Your task to perform on an android device: delete location history Image 0: 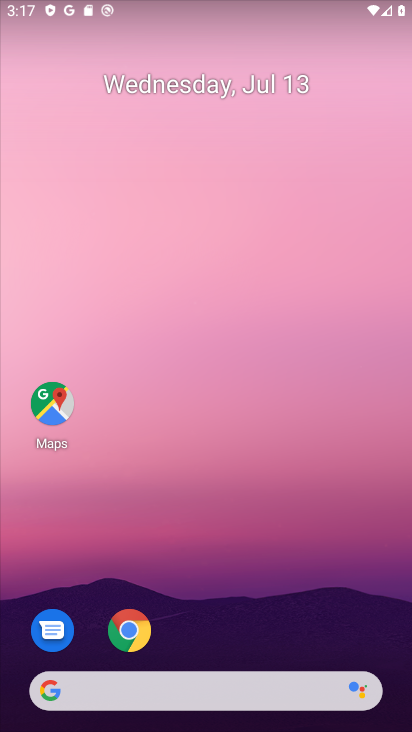
Step 0: drag from (174, 511) to (128, 324)
Your task to perform on an android device: delete location history Image 1: 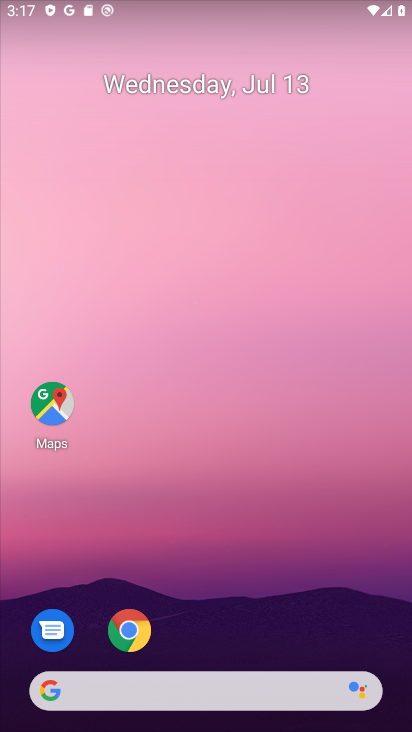
Step 1: drag from (131, 227) to (127, 124)
Your task to perform on an android device: delete location history Image 2: 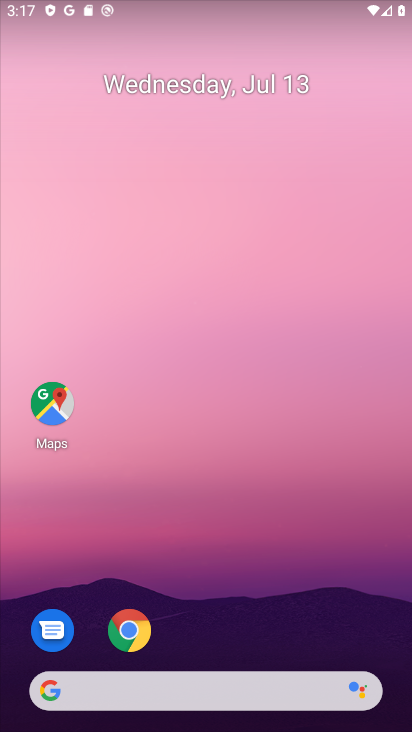
Step 2: drag from (137, 482) to (132, 192)
Your task to perform on an android device: delete location history Image 3: 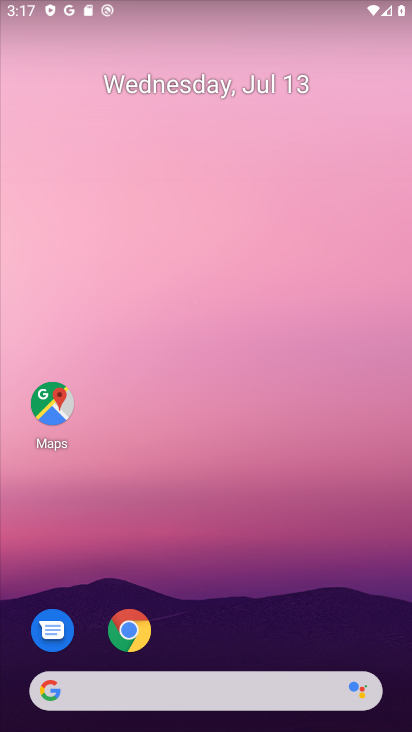
Step 3: drag from (206, 623) to (199, 291)
Your task to perform on an android device: delete location history Image 4: 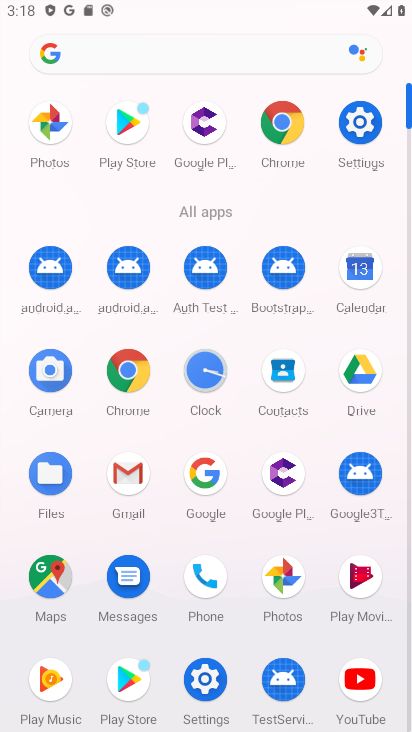
Step 4: click (55, 577)
Your task to perform on an android device: delete location history Image 5: 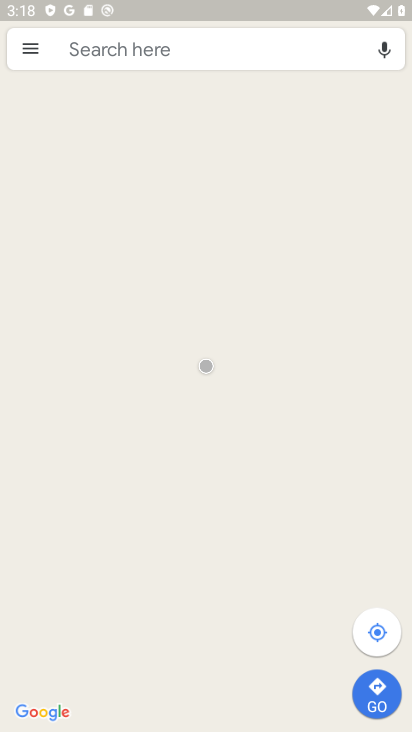
Step 5: click (22, 52)
Your task to perform on an android device: delete location history Image 6: 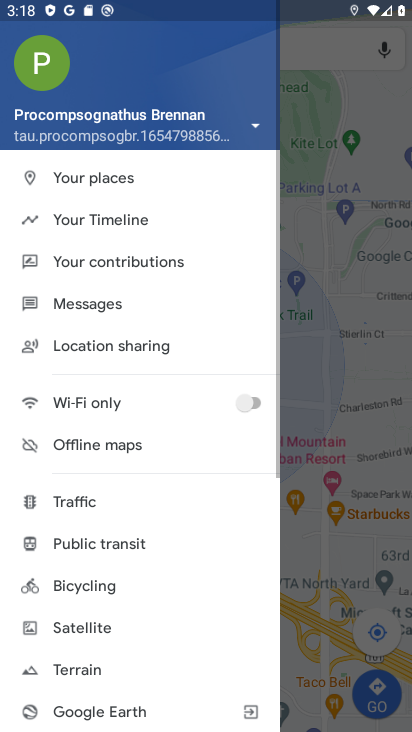
Step 6: click (106, 221)
Your task to perform on an android device: delete location history Image 7: 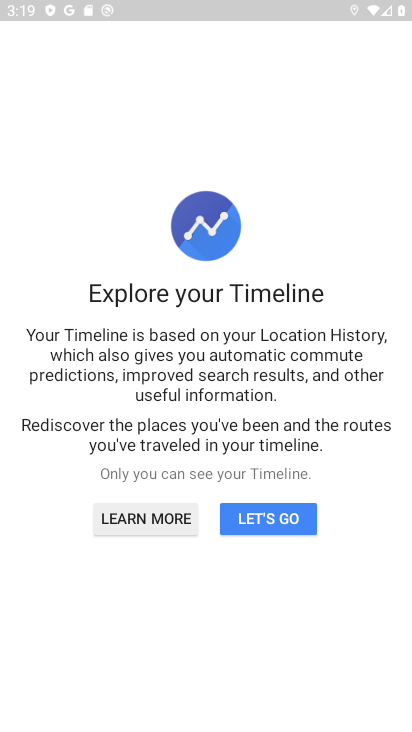
Step 7: click (261, 523)
Your task to perform on an android device: delete location history Image 8: 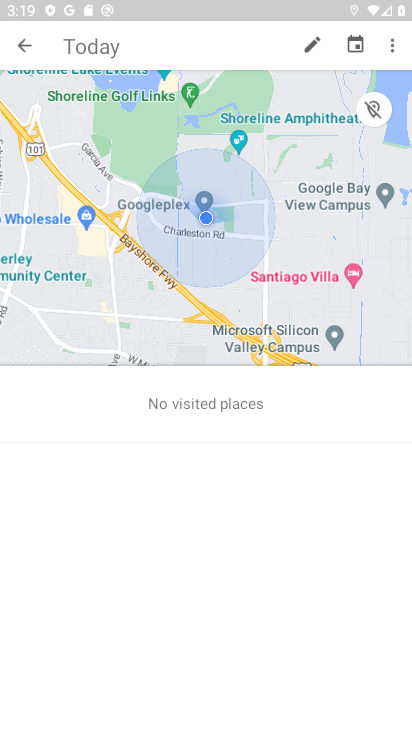
Step 8: click (392, 47)
Your task to perform on an android device: delete location history Image 9: 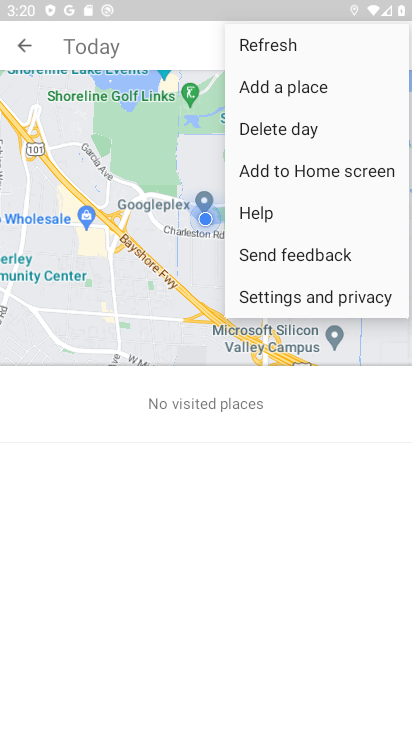
Step 9: click (277, 304)
Your task to perform on an android device: delete location history Image 10: 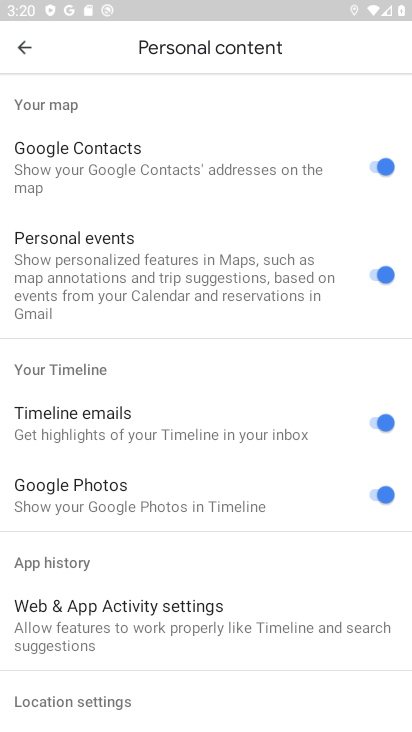
Step 10: drag from (168, 620) to (274, 283)
Your task to perform on an android device: delete location history Image 11: 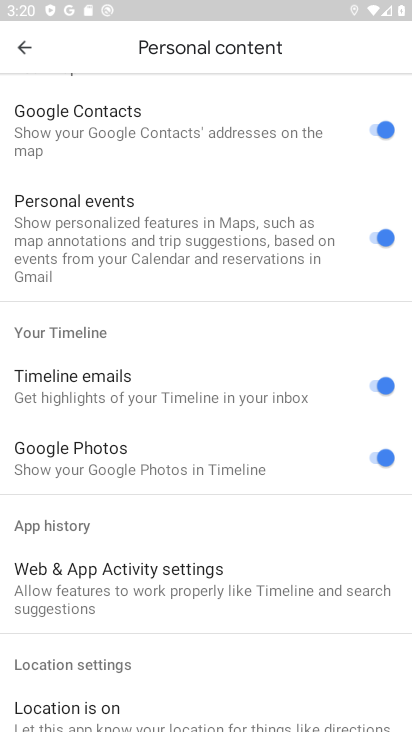
Step 11: drag from (134, 572) to (154, 409)
Your task to perform on an android device: delete location history Image 12: 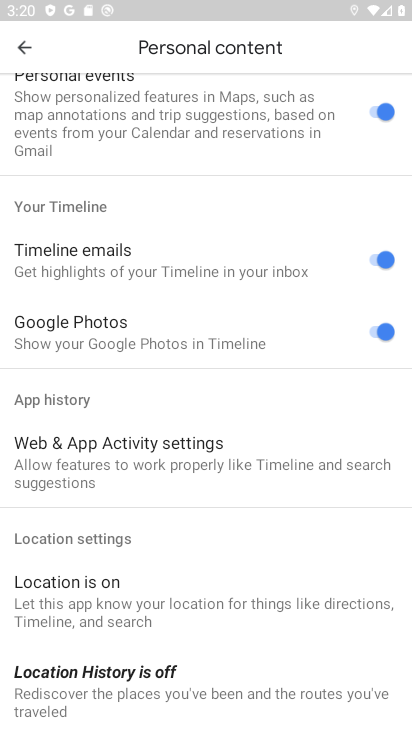
Step 12: drag from (121, 676) to (131, 484)
Your task to perform on an android device: delete location history Image 13: 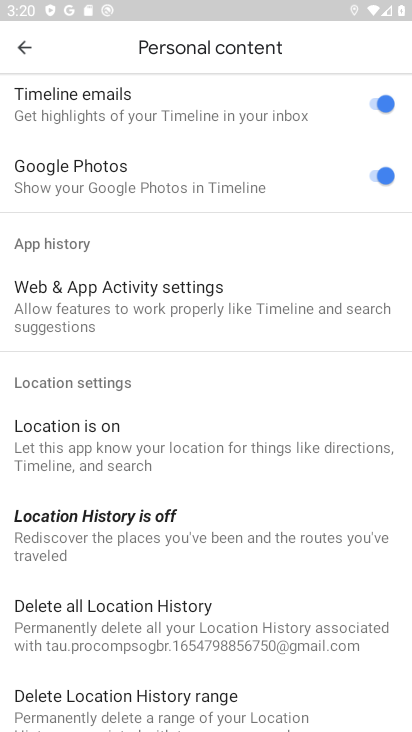
Step 13: click (114, 633)
Your task to perform on an android device: delete location history Image 14: 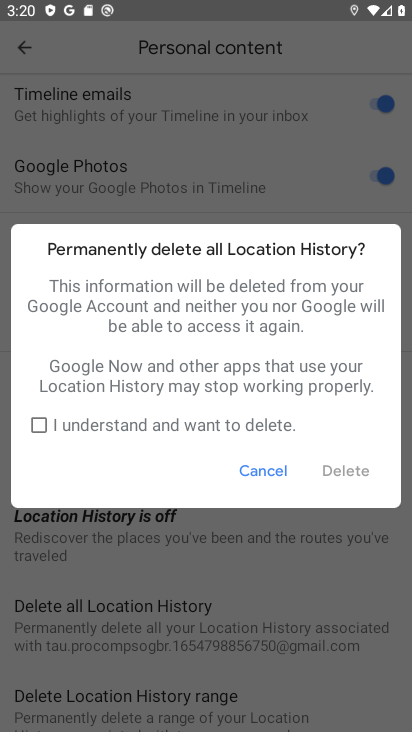
Step 14: click (44, 424)
Your task to perform on an android device: delete location history Image 15: 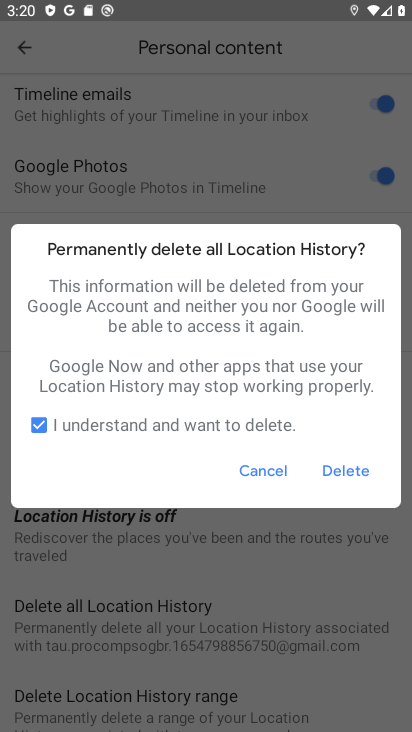
Step 15: click (348, 470)
Your task to perform on an android device: delete location history Image 16: 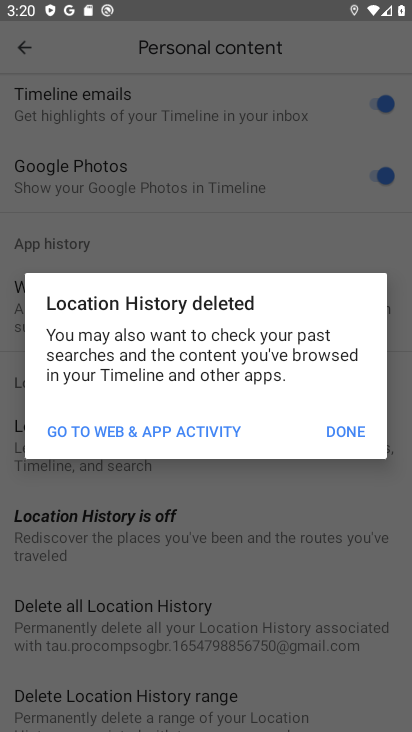
Step 16: click (335, 421)
Your task to perform on an android device: delete location history Image 17: 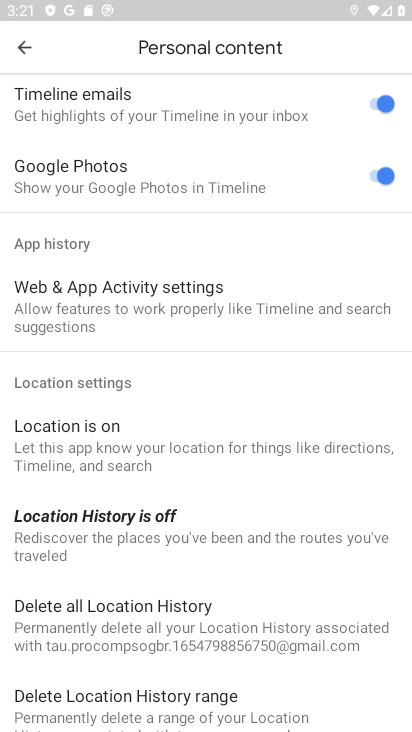
Step 17: task complete